Your task to perform on an android device: Go to ESPN.com Image 0: 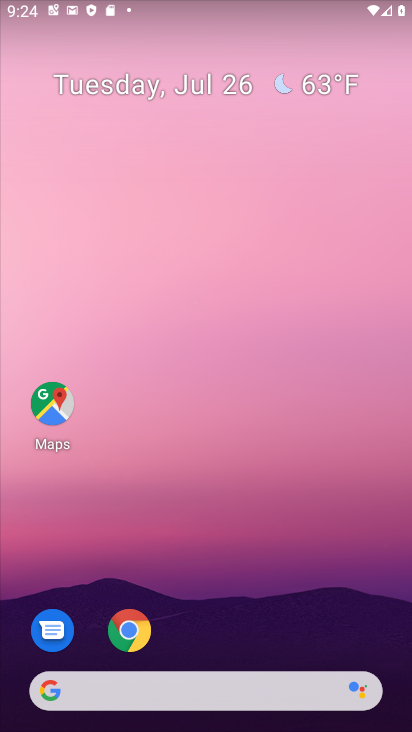
Step 0: click (47, 402)
Your task to perform on an android device: Go to ESPN.com Image 1: 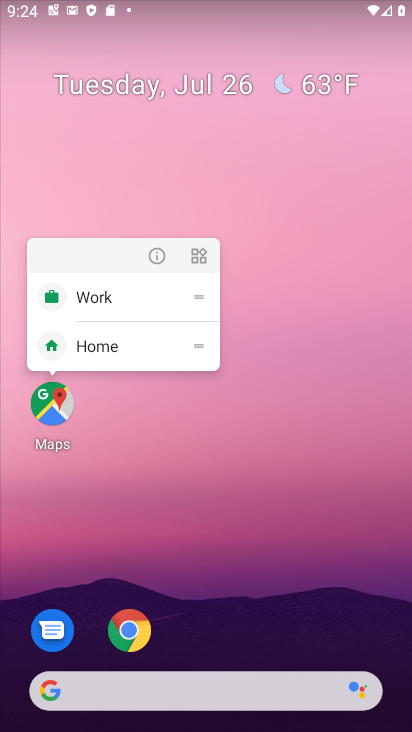
Step 1: click (155, 495)
Your task to perform on an android device: Go to ESPN.com Image 2: 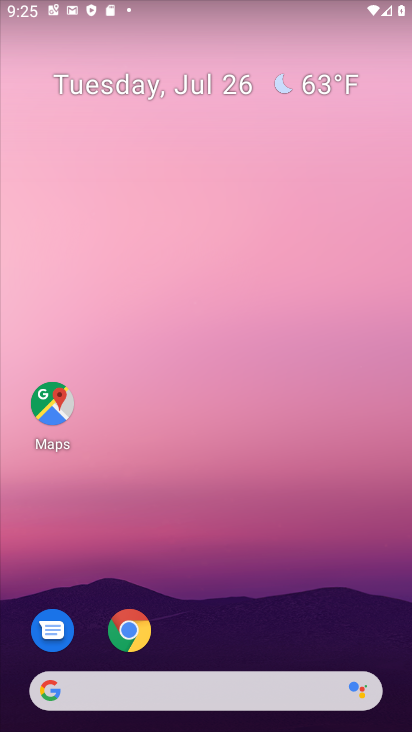
Step 2: click (126, 626)
Your task to perform on an android device: Go to ESPN.com Image 3: 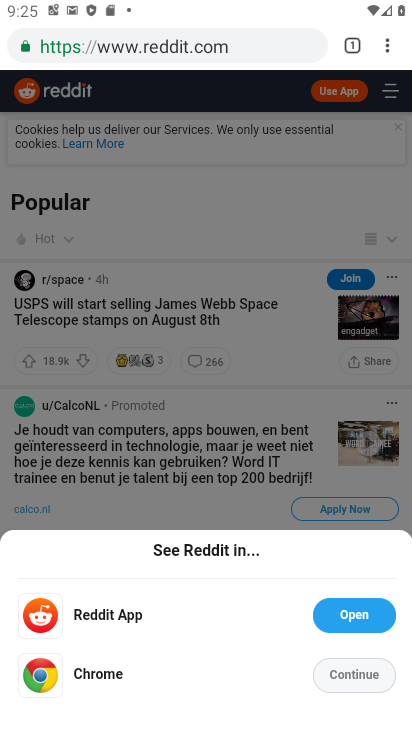
Step 3: click (354, 673)
Your task to perform on an android device: Go to ESPN.com Image 4: 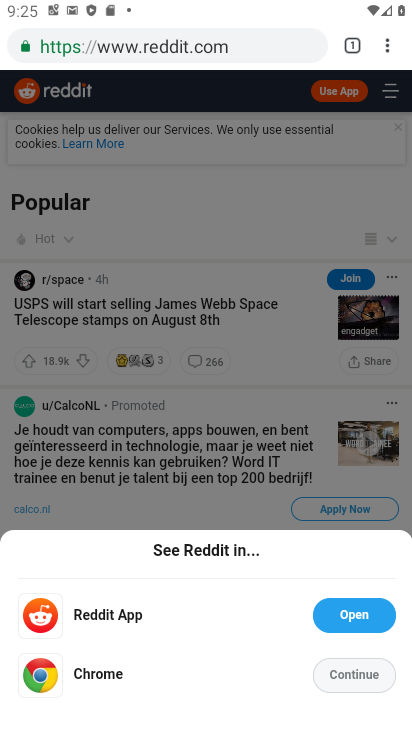
Step 4: click (353, 42)
Your task to perform on an android device: Go to ESPN.com Image 5: 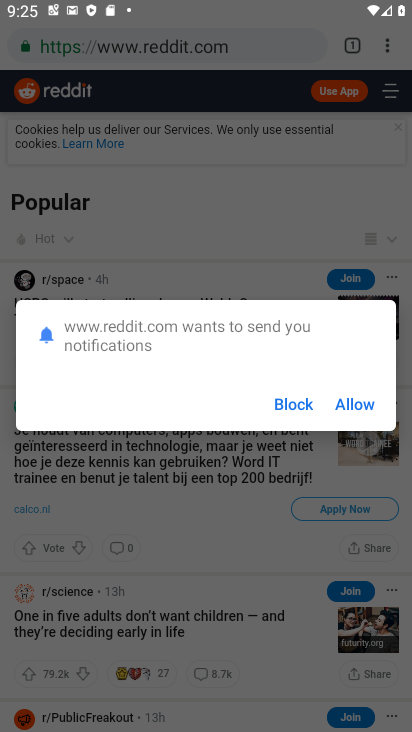
Step 5: click (350, 404)
Your task to perform on an android device: Go to ESPN.com Image 6: 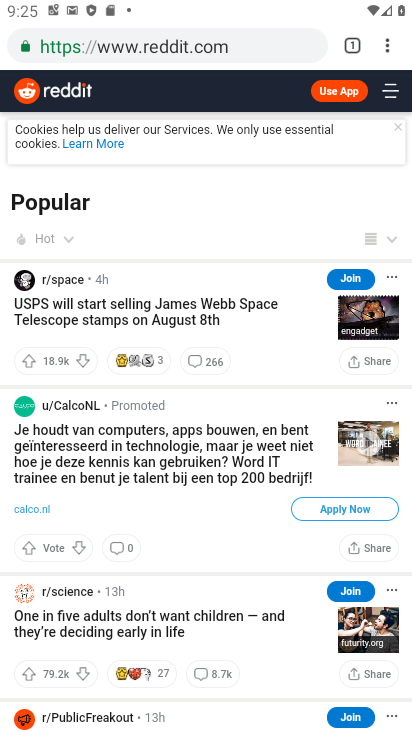
Step 6: click (350, 41)
Your task to perform on an android device: Go to ESPN.com Image 7: 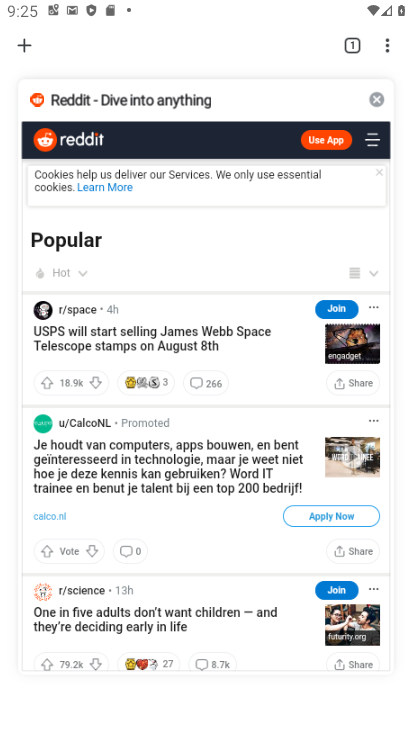
Step 7: click (21, 45)
Your task to perform on an android device: Go to ESPN.com Image 8: 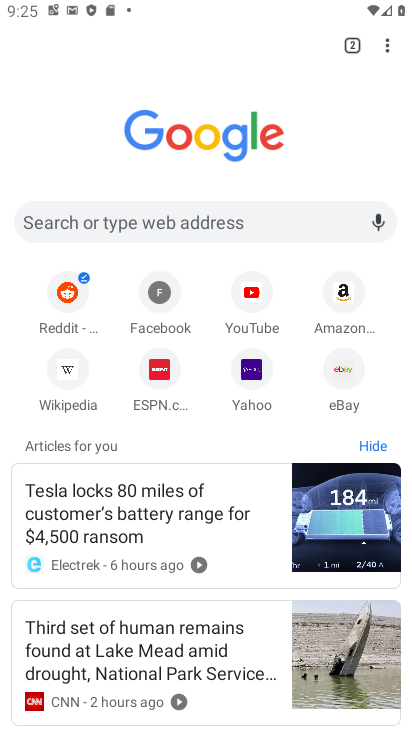
Step 8: click (152, 364)
Your task to perform on an android device: Go to ESPN.com Image 9: 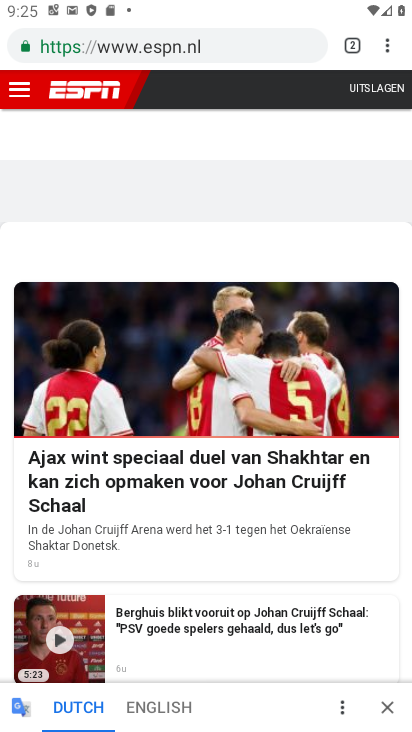
Step 9: click (383, 708)
Your task to perform on an android device: Go to ESPN.com Image 10: 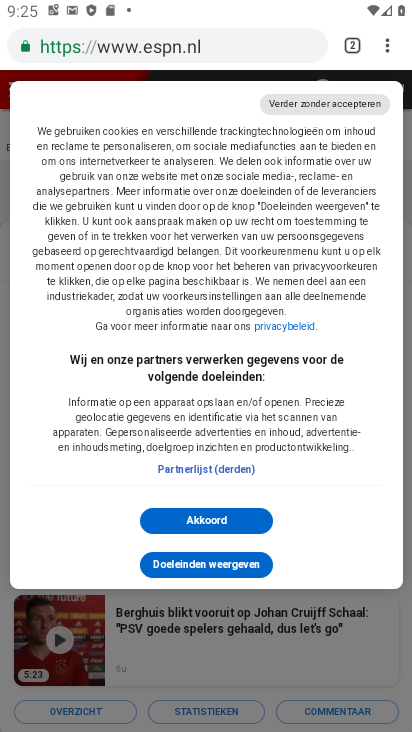
Step 10: click (214, 518)
Your task to perform on an android device: Go to ESPN.com Image 11: 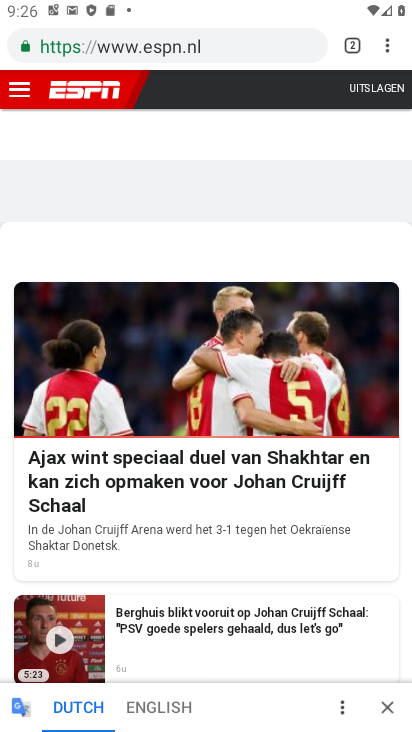
Step 11: task complete